Your task to perform on an android device: change notifications settings Image 0: 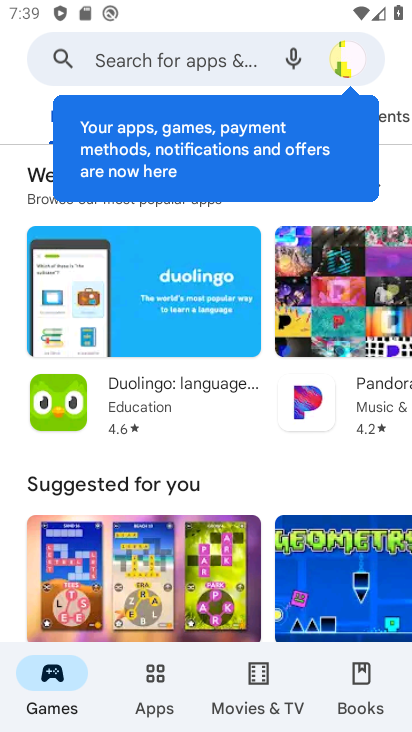
Step 0: press home button
Your task to perform on an android device: change notifications settings Image 1: 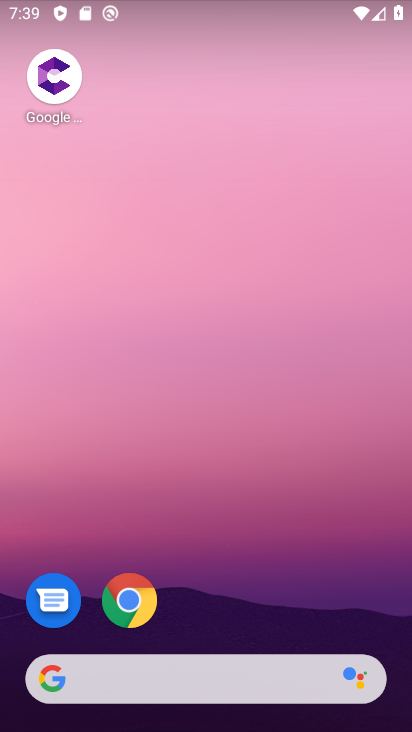
Step 1: drag from (258, 599) to (306, 55)
Your task to perform on an android device: change notifications settings Image 2: 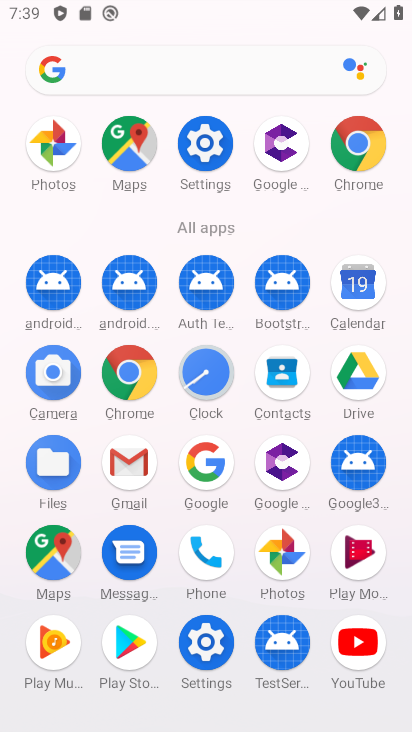
Step 2: click (204, 208)
Your task to perform on an android device: change notifications settings Image 3: 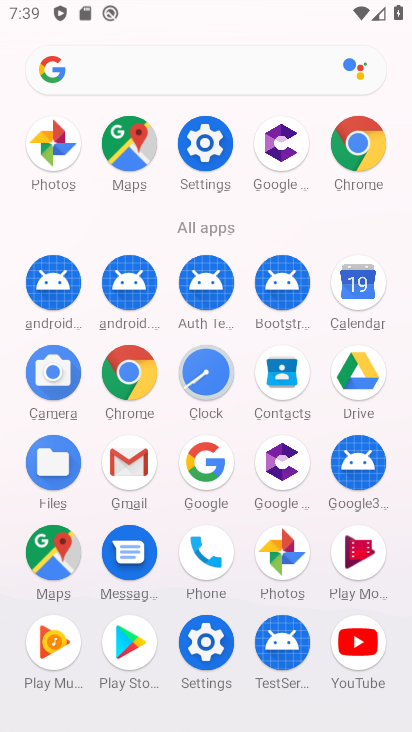
Step 3: click (211, 169)
Your task to perform on an android device: change notifications settings Image 4: 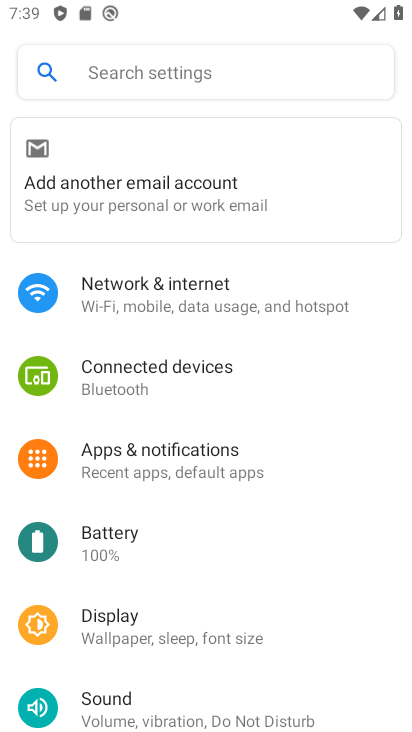
Step 4: click (145, 310)
Your task to perform on an android device: change notifications settings Image 5: 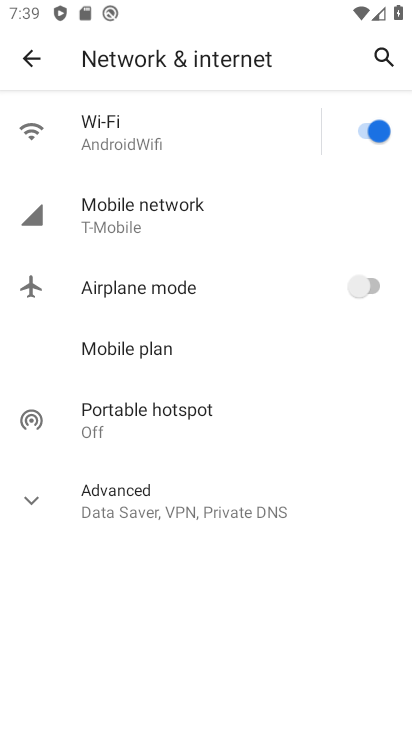
Step 5: click (32, 47)
Your task to perform on an android device: change notifications settings Image 6: 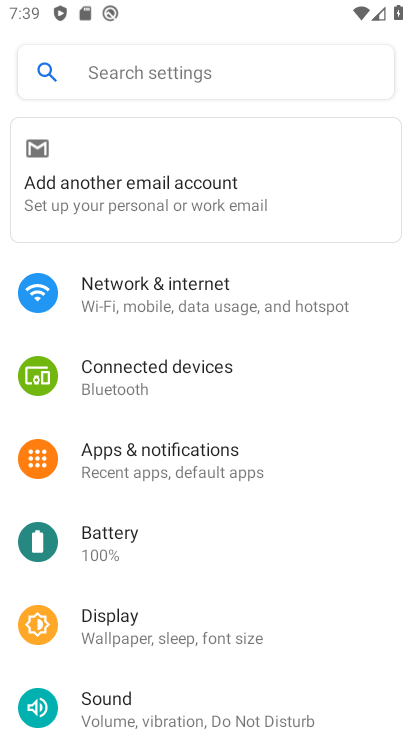
Step 6: click (120, 465)
Your task to perform on an android device: change notifications settings Image 7: 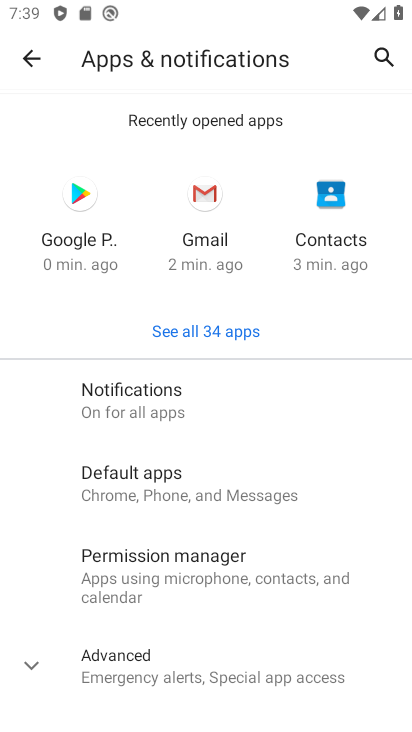
Step 7: click (237, 395)
Your task to perform on an android device: change notifications settings Image 8: 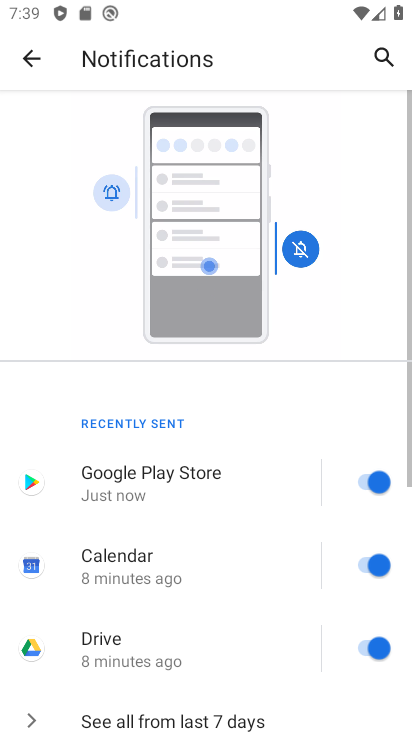
Step 8: drag from (221, 633) to (268, 316)
Your task to perform on an android device: change notifications settings Image 9: 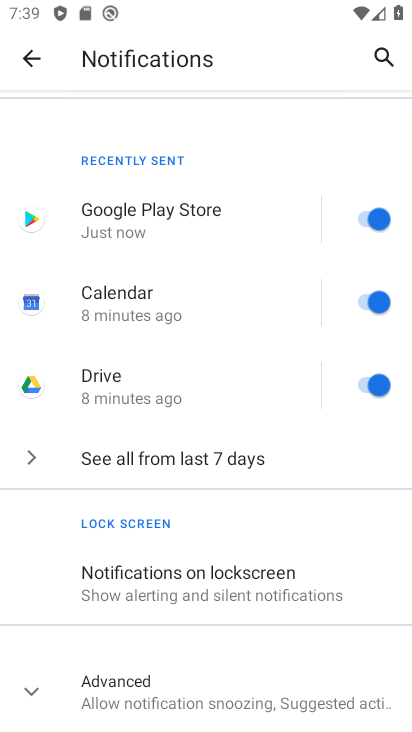
Step 9: click (247, 675)
Your task to perform on an android device: change notifications settings Image 10: 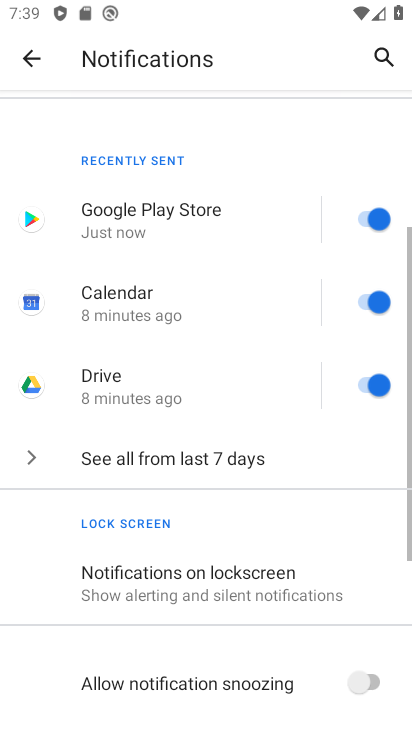
Step 10: click (247, 675)
Your task to perform on an android device: change notifications settings Image 11: 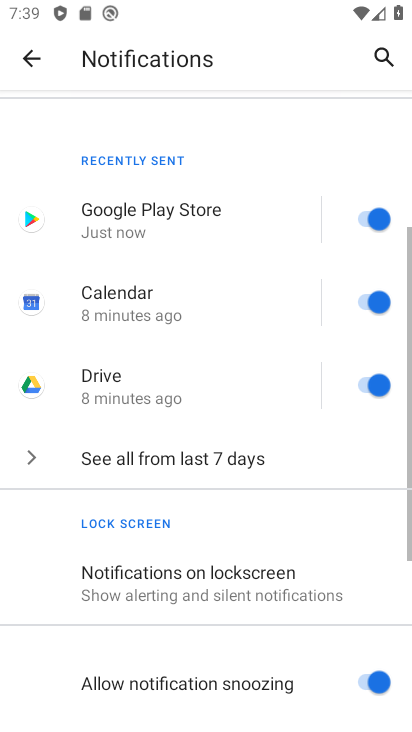
Step 11: task complete